Your task to perform on an android device: delete location history Image 0: 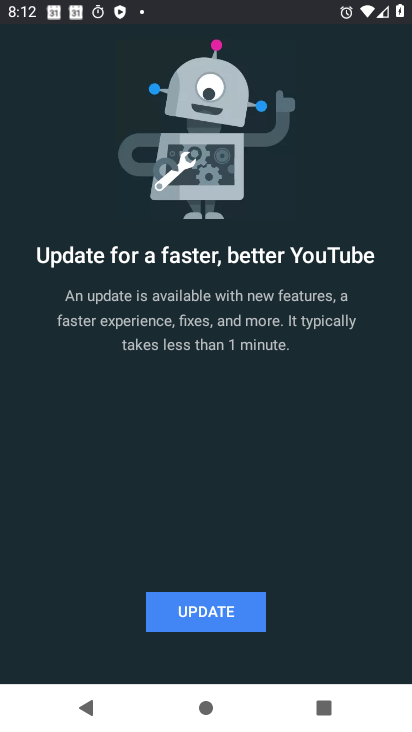
Step 0: press home button
Your task to perform on an android device: delete location history Image 1: 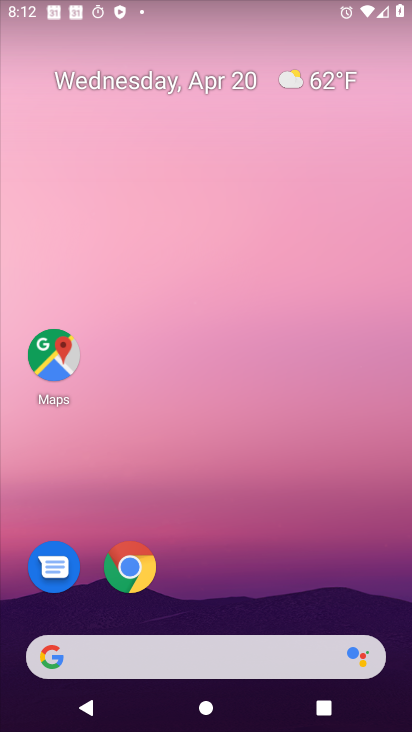
Step 1: click (53, 355)
Your task to perform on an android device: delete location history Image 2: 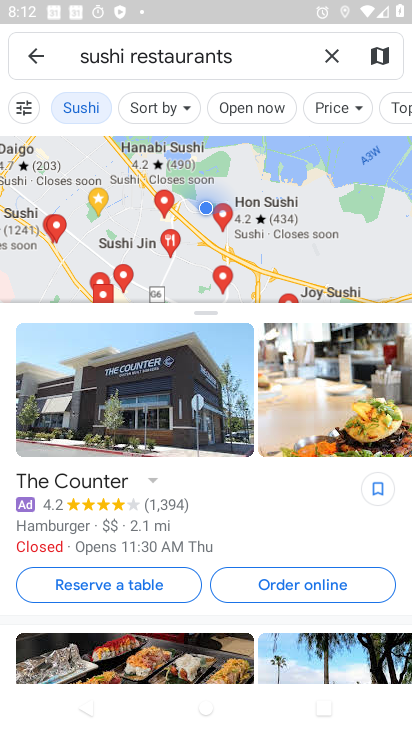
Step 2: click (329, 50)
Your task to perform on an android device: delete location history Image 3: 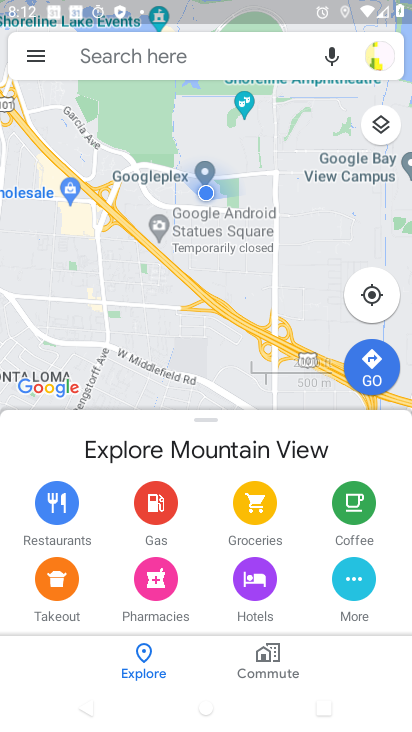
Step 3: click (35, 57)
Your task to perform on an android device: delete location history Image 4: 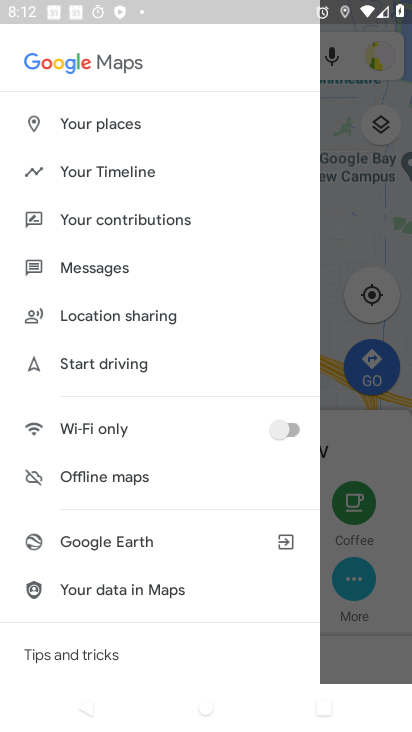
Step 4: click (89, 172)
Your task to perform on an android device: delete location history Image 5: 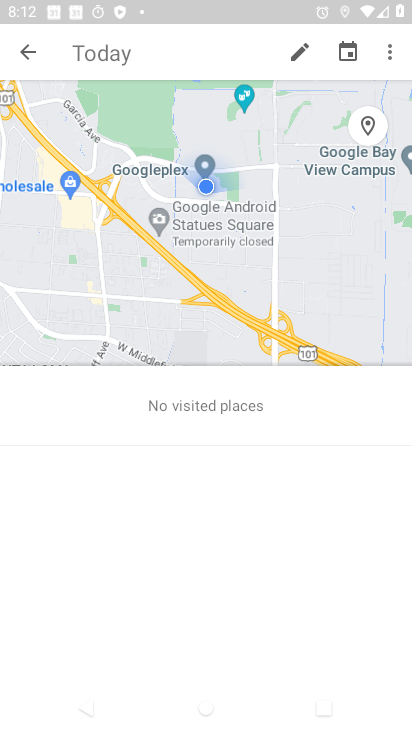
Step 5: click (391, 52)
Your task to perform on an android device: delete location history Image 6: 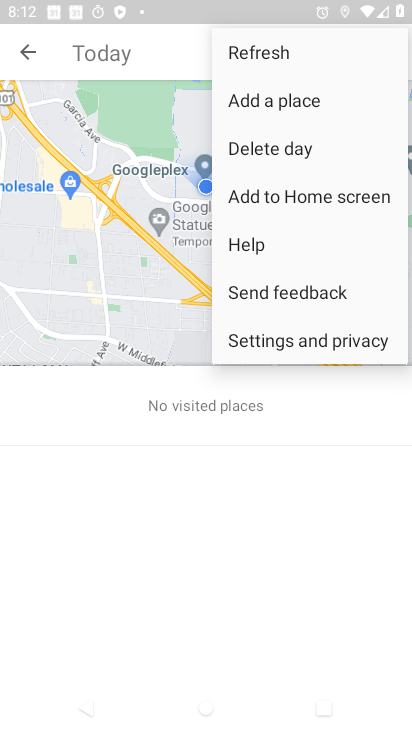
Step 6: click (312, 345)
Your task to perform on an android device: delete location history Image 7: 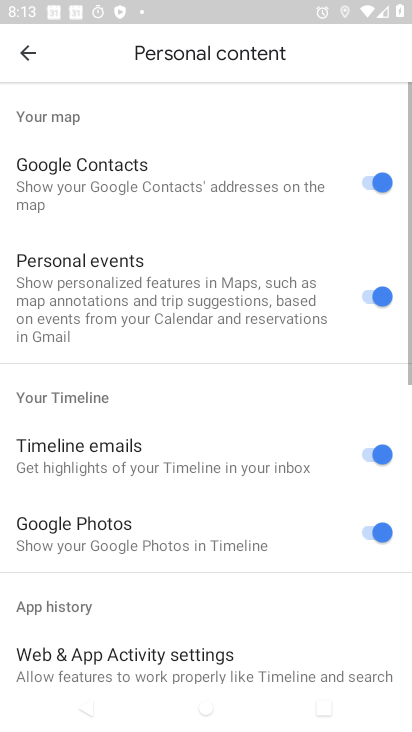
Step 7: drag from (187, 481) to (194, 73)
Your task to perform on an android device: delete location history Image 8: 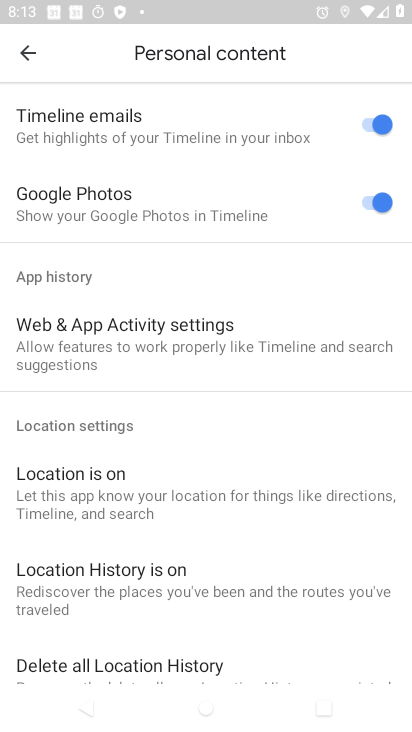
Step 8: click (138, 664)
Your task to perform on an android device: delete location history Image 9: 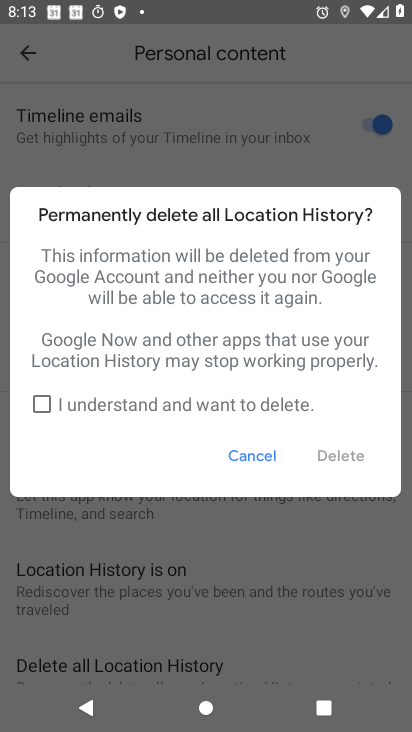
Step 9: click (41, 410)
Your task to perform on an android device: delete location history Image 10: 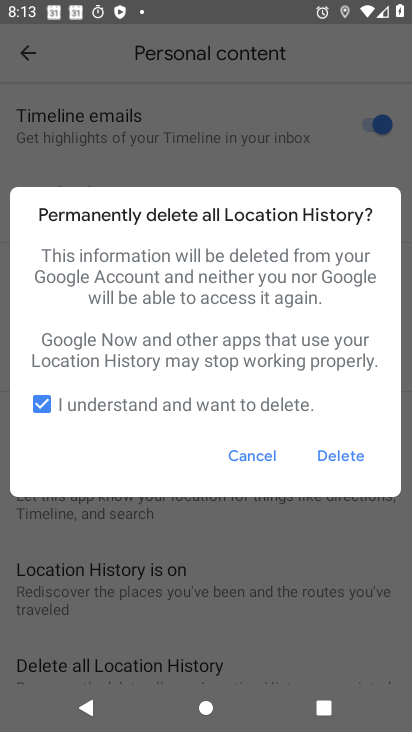
Step 10: click (362, 464)
Your task to perform on an android device: delete location history Image 11: 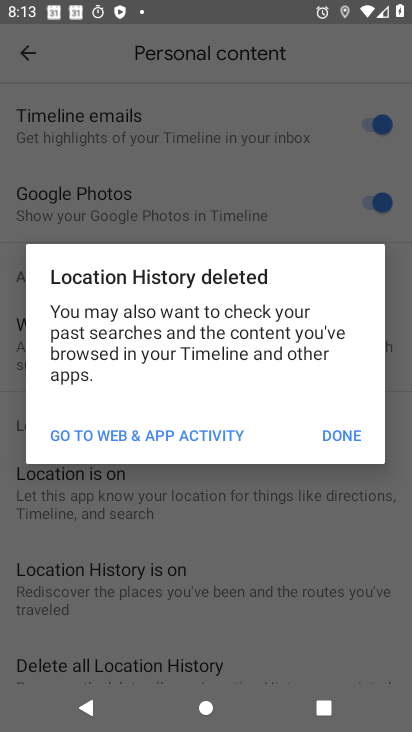
Step 11: click (345, 437)
Your task to perform on an android device: delete location history Image 12: 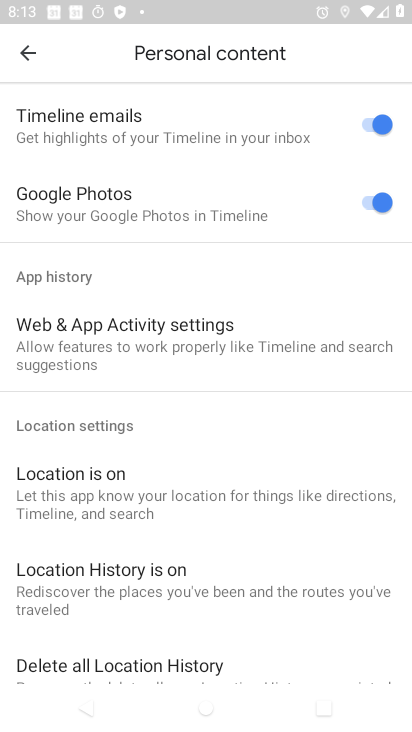
Step 12: task complete